Your task to perform on an android device: change the clock display to digital Image 0: 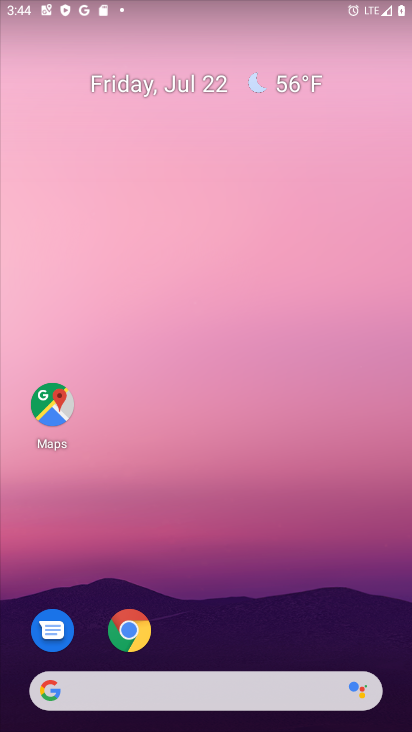
Step 0: drag from (227, 691) to (230, 172)
Your task to perform on an android device: change the clock display to digital Image 1: 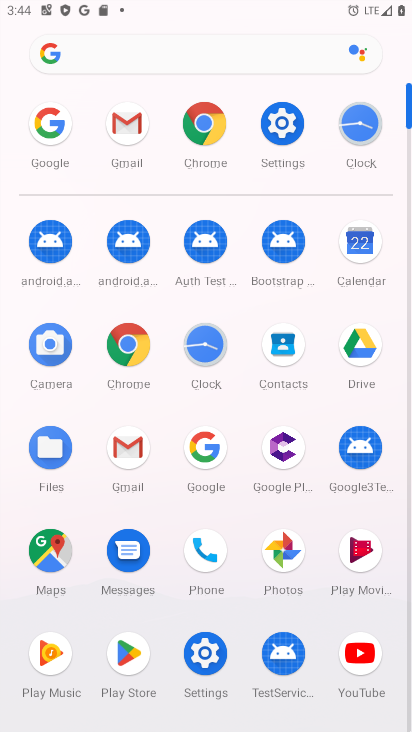
Step 1: click (202, 360)
Your task to perform on an android device: change the clock display to digital Image 2: 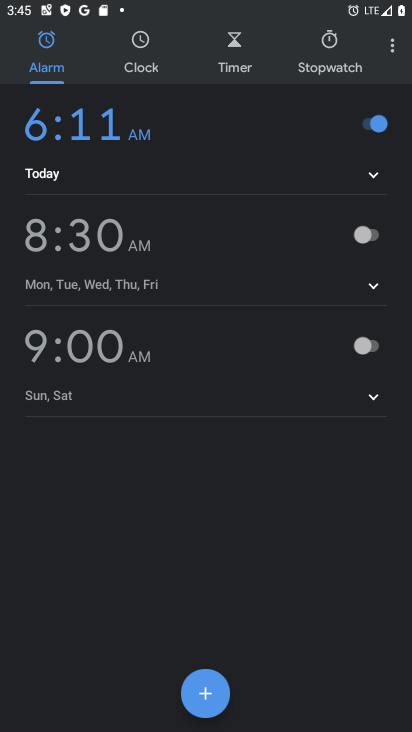
Step 2: click (395, 61)
Your task to perform on an android device: change the clock display to digital Image 3: 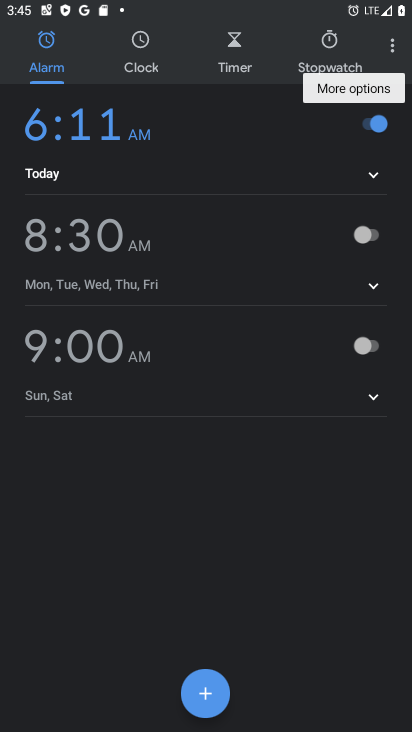
Step 3: click (395, 61)
Your task to perform on an android device: change the clock display to digital Image 4: 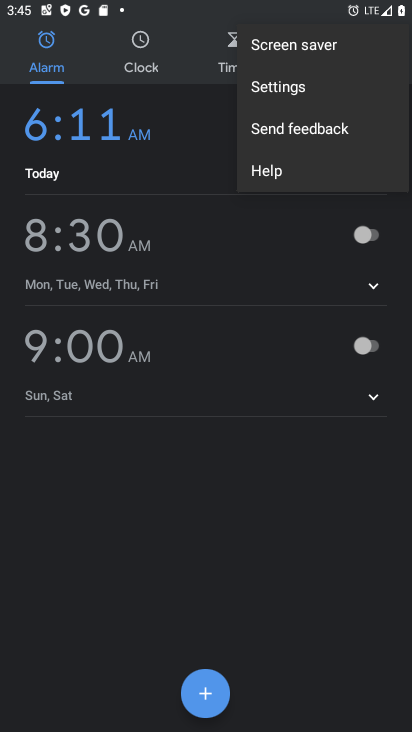
Step 4: click (277, 97)
Your task to perform on an android device: change the clock display to digital Image 5: 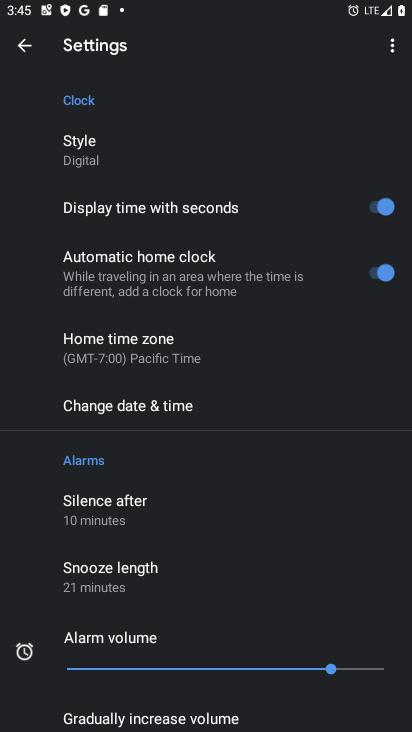
Step 5: click (109, 136)
Your task to perform on an android device: change the clock display to digital Image 6: 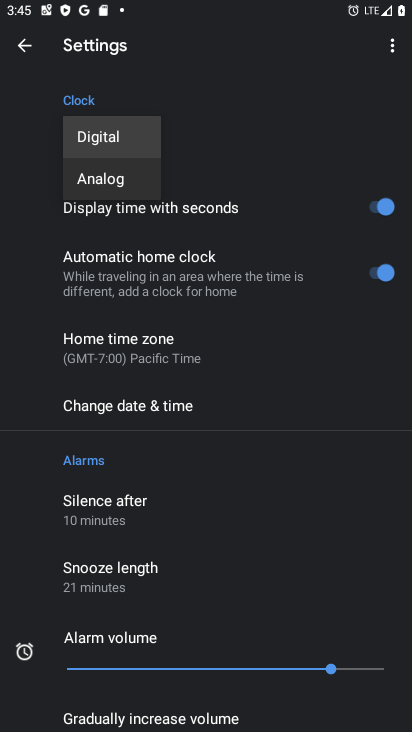
Step 6: click (109, 136)
Your task to perform on an android device: change the clock display to digital Image 7: 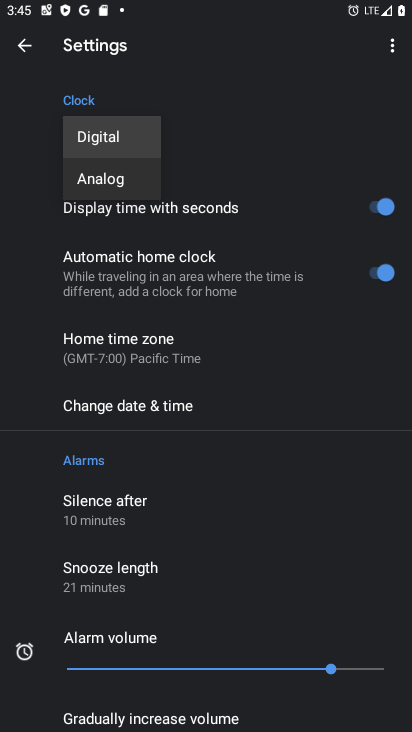
Step 7: click (109, 135)
Your task to perform on an android device: change the clock display to digital Image 8: 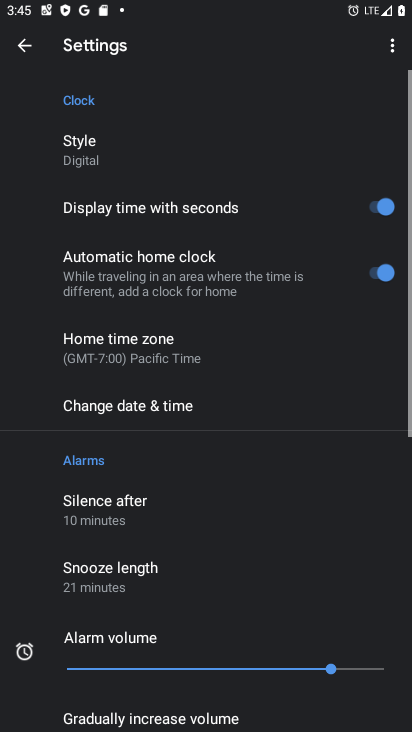
Step 8: task complete